Your task to perform on an android device: Go to Amazon Image 0: 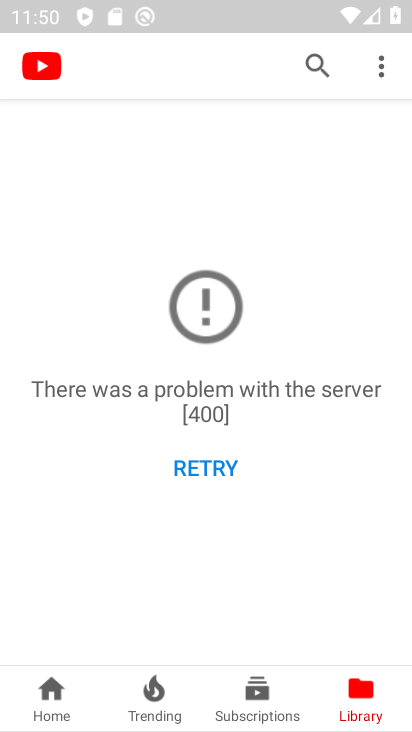
Step 0: press back button
Your task to perform on an android device: Go to Amazon Image 1: 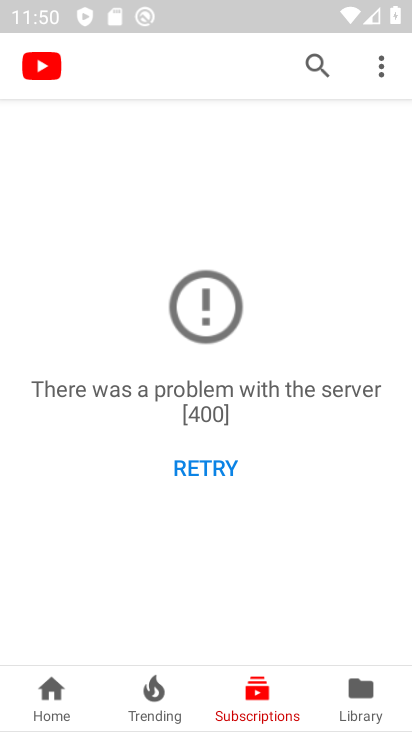
Step 1: press back button
Your task to perform on an android device: Go to Amazon Image 2: 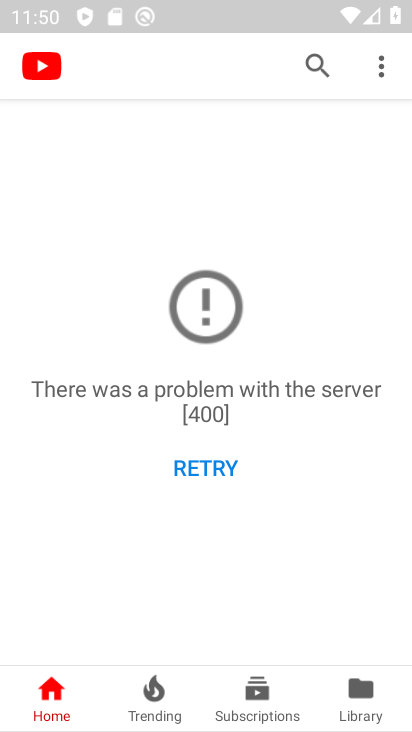
Step 2: press home button
Your task to perform on an android device: Go to Amazon Image 3: 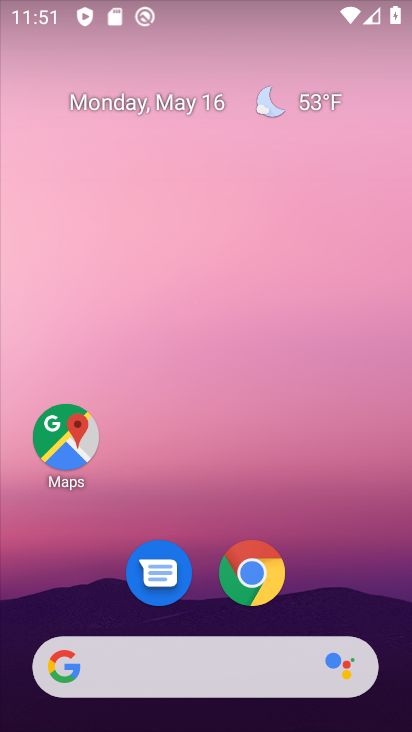
Step 3: click (291, 588)
Your task to perform on an android device: Go to Amazon Image 4: 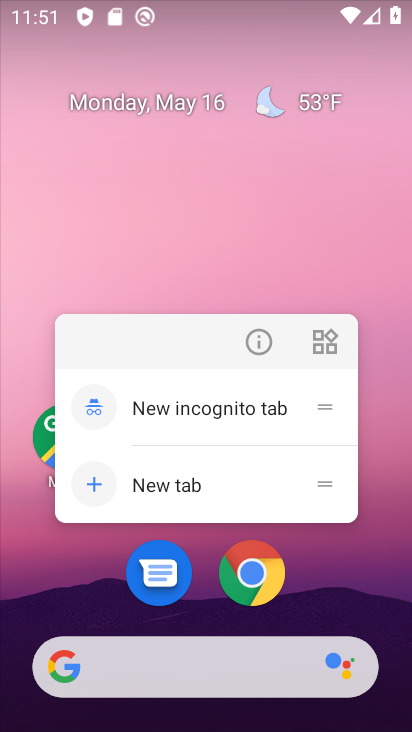
Step 4: click (273, 587)
Your task to perform on an android device: Go to Amazon Image 5: 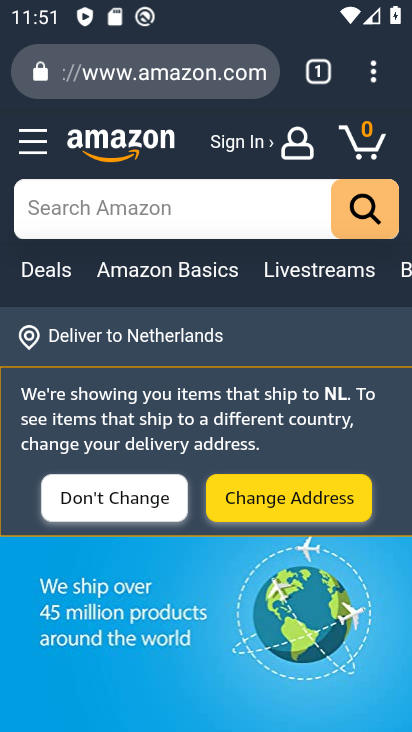
Step 5: task complete